Your task to perform on an android device: What's on my calendar tomorrow? Image 0: 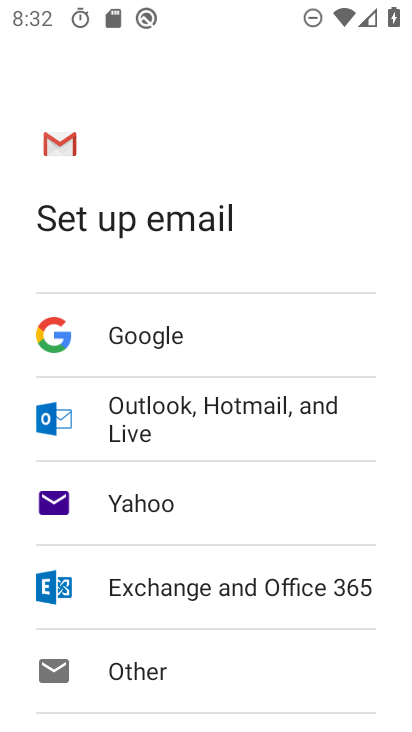
Step 0: press home button
Your task to perform on an android device: What's on my calendar tomorrow? Image 1: 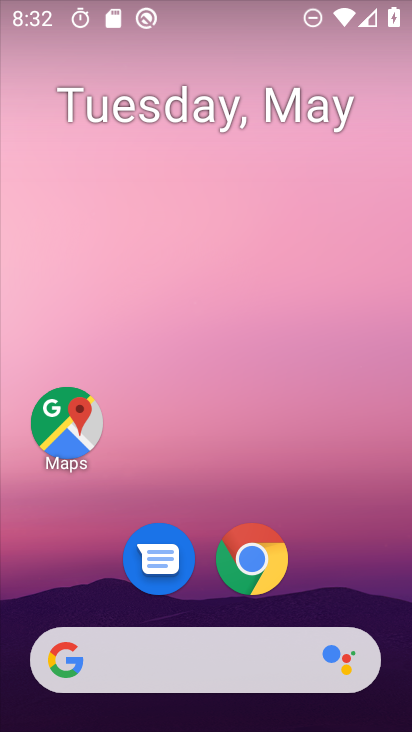
Step 1: drag from (403, 672) to (302, 132)
Your task to perform on an android device: What's on my calendar tomorrow? Image 2: 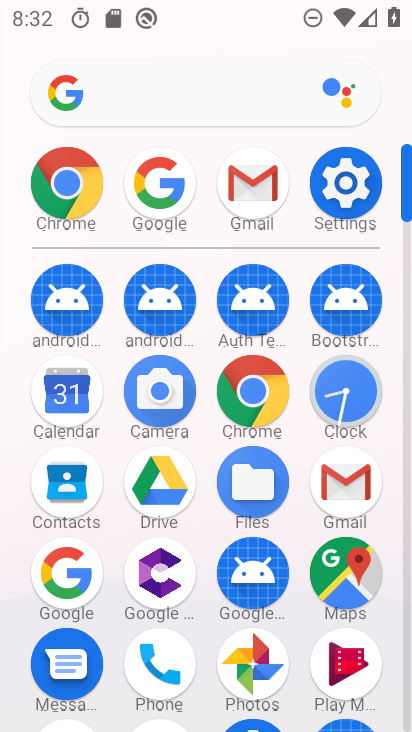
Step 2: click (65, 394)
Your task to perform on an android device: What's on my calendar tomorrow? Image 3: 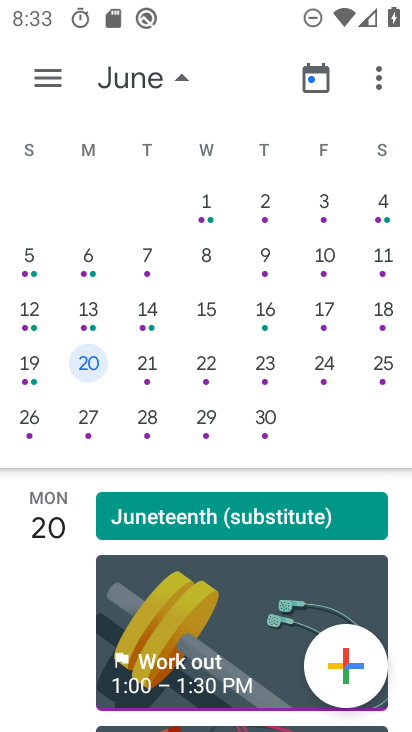
Step 3: click (256, 205)
Your task to perform on an android device: What's on my calendar tomorrow? Image 4: 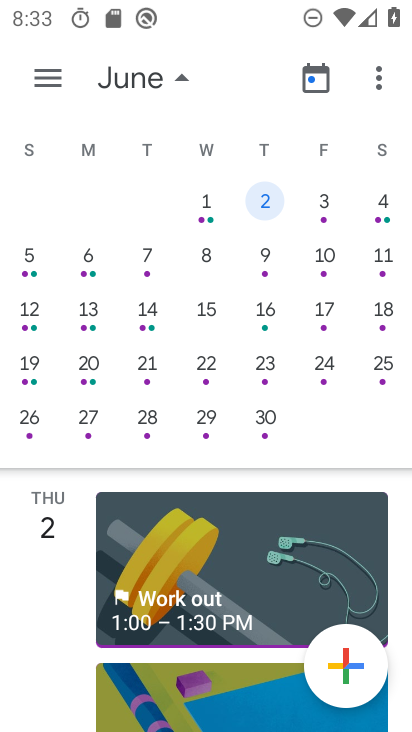
Step 4: click (264, 549)
Your task to perform on an android device: What's on my calendar tomorrow? Image 5: 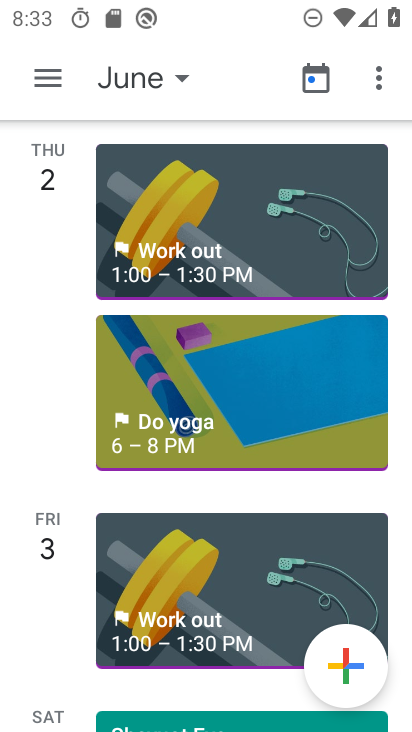
Step 5: click (227, 365)
Your task to perform on an android device: What's on my calendar tomorrow? Image 6: 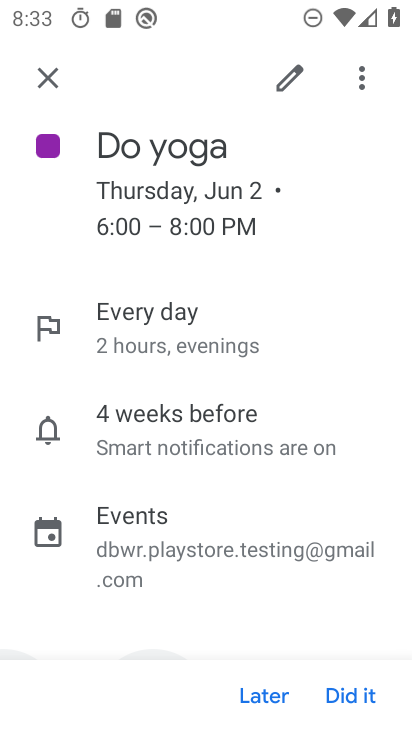
Step 6: task complete